Your task to perform on an android device: open wifi settings Image 0: 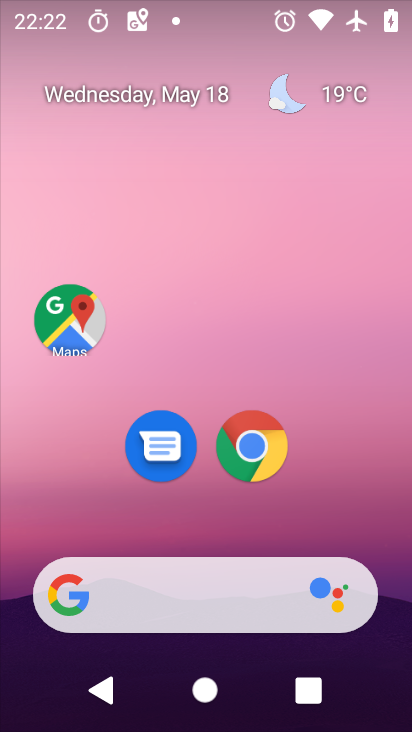
Step 0: press home button
Your task to perform on an android device: open wifi settings Image 1: 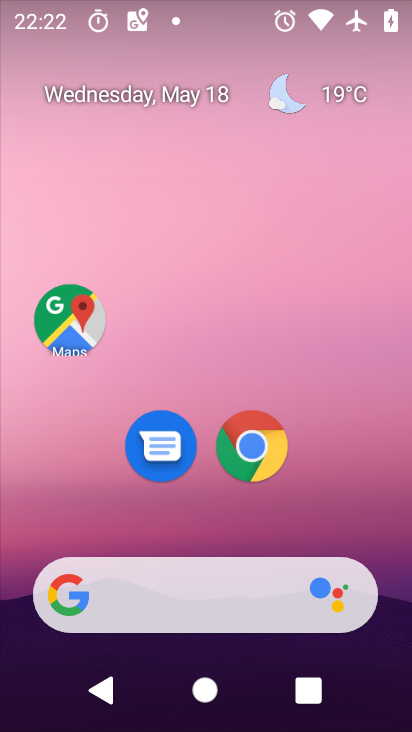
Step 1: drag from (161, 571) to (280, 72)
Your task to perform on an android device: open wifi settings Image 2: 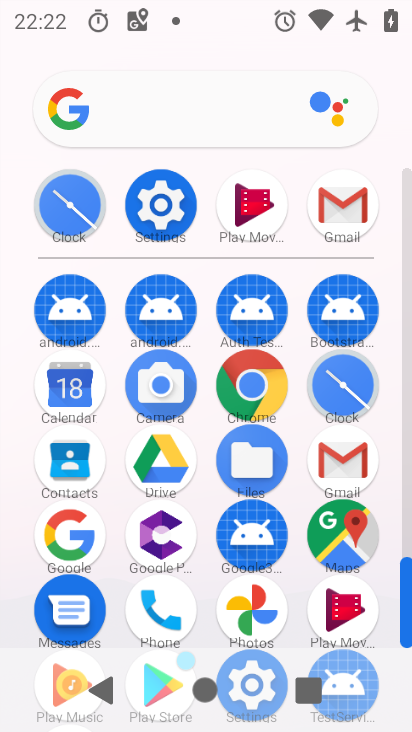
Step 2: click (168, 214)
Your task to perform on an android device: open wifi settings Image 3: 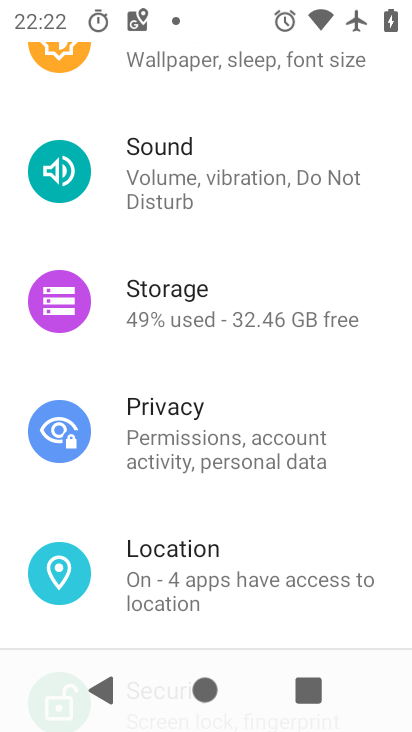
Step 3: drag from (314, 121) to (250, 545)
Your task to perform on an android device: open wifi settings Image 4: 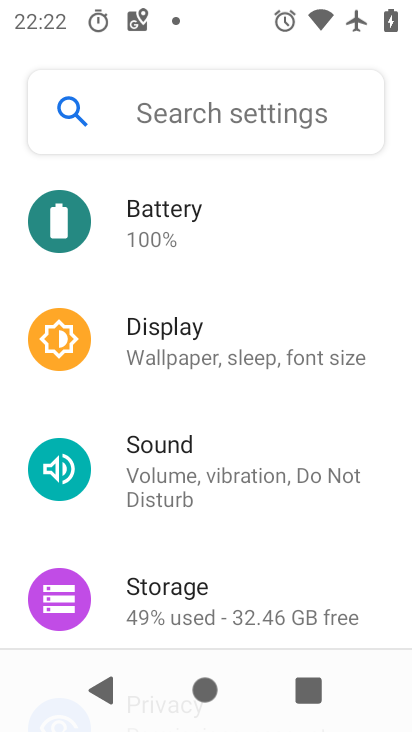
Step 4: drag from (284, 186) to (234, 616)
Your task to perform on an android device: open wifi settings Image 5: 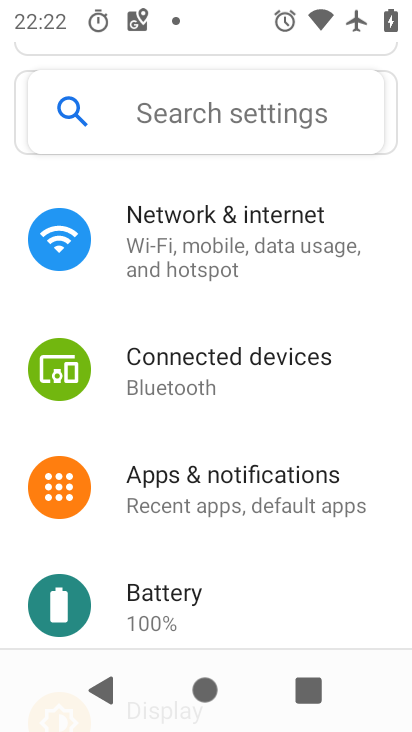
Step 5: click (225, 235)
Your task to perform on an android device: open wifi settings Image 6: 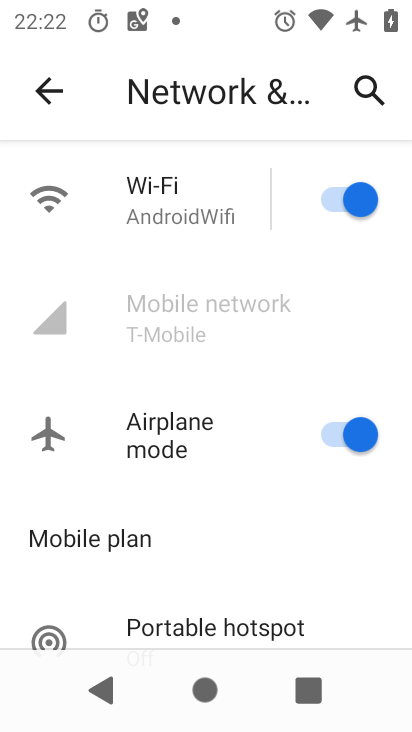
Step 6: click (186, 198)
Your task to perform on an android device: open wifi settings Image 7: 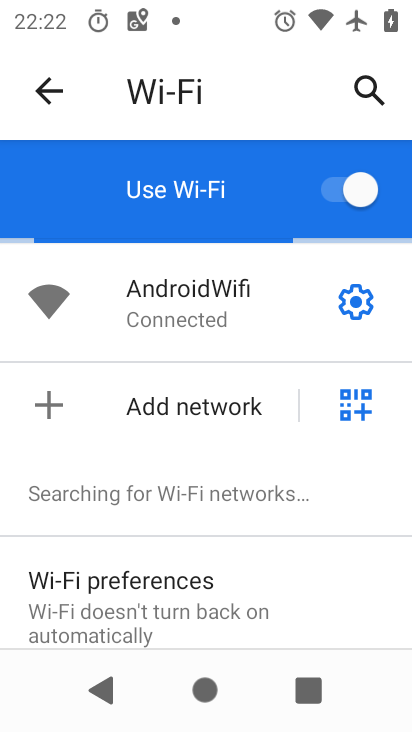
Step 7: task complete